Your task to perform on an android device: Search for "alienware area 51" on target.com, select the first entry, and add it to the cart. Image 0: 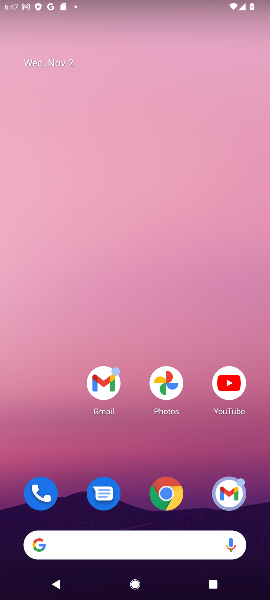
Step 0: drag from (128, 500) to (127, 216)
Your task to perform on an android device: Search for "alienware area 51" on target.com, select the first entry, and add it to the cart. Image 1: 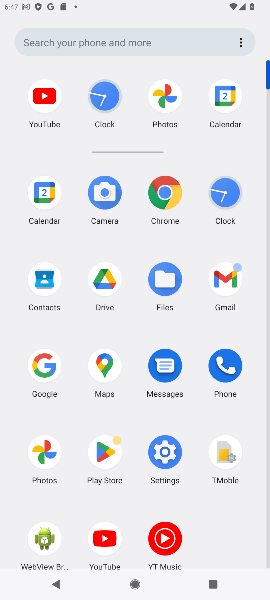
Step 1: click (40, 358)
Your task to perform on an android device: Search for "alienware area 51" on target.com, select the first entry, and add it to the cart. Image 2: 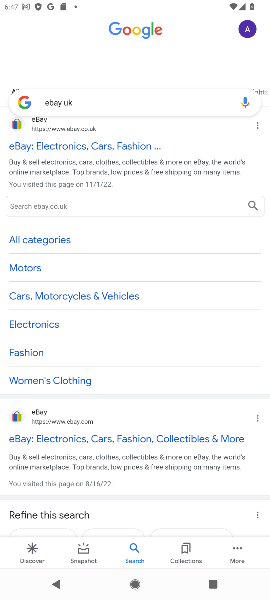
Step 2: click (111, 102)
Your task to perform on an android device: Search for "alienware area 51" on target.com, select the first entry, and add it to the cart. Image 3: 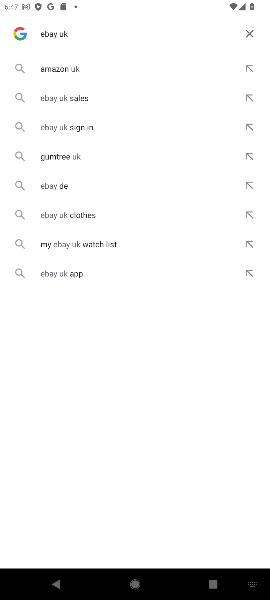
Step 3: click (244, 28)
Your task to perform on an android device: Search for "alienware area 51" on target.com, select the first entry, and add it to the cart. Image 4: 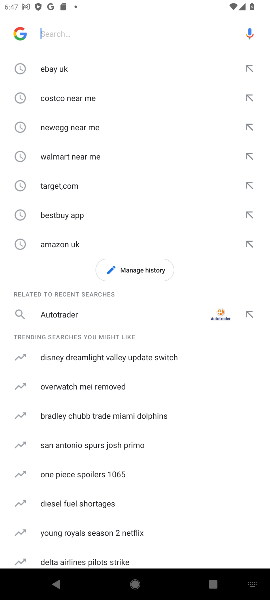
Step 4: click (35, 24)
Your task to perform on an android device: Search for "alienware area 51" on target.com, select the first entry, and add it to the cart. Image 5: 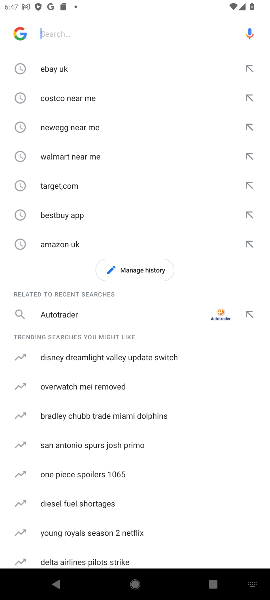
Step 5: click (41, 24)
Your task to perform on an android device: Search for "alienware area 51" on target.com, select the first entry, and add it to the cart. Image 6: 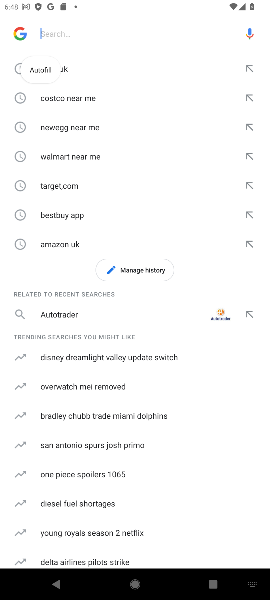
Step 6: type "target "
Your task to perform on an android device: Search for "alienware area 51" on target.com, select the first entry, and add it to the cart. Image 7: 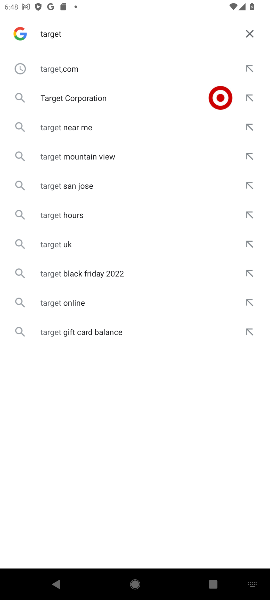
Step 7: click (59, 67)
Your task to perform on an android device: Search for "alienware area 51" on target.com, select the first entry, and add it to the cart. Image 8: 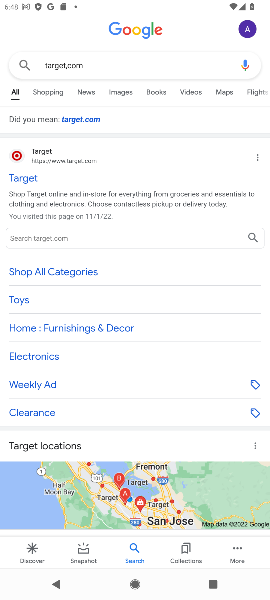
Step 8: click (12, 156)
Your task to perform on an android device: Search for "alienware area 51" on target.com, select the first entry, and add it to the cart. Image 9: 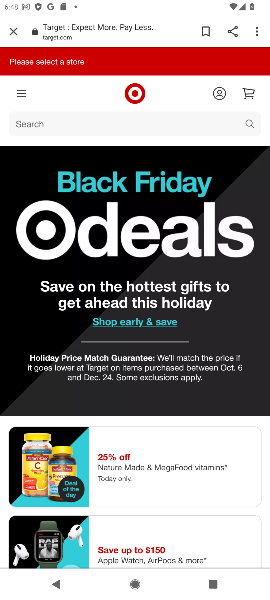
Step 9: click (112, 116)
Your task to perform on an android device: Search for "alienware area 51" on target.com, select the first entry, and add it to the cart. Image 10: 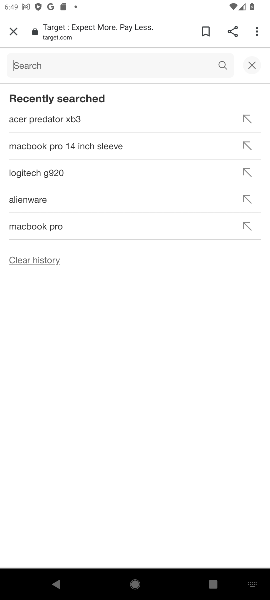
Step 10: click (65, 55)
Your task to perform on an android device: Search for "alienware area 51" on target.com, select the first entry, and add it to the cart. Image 11: 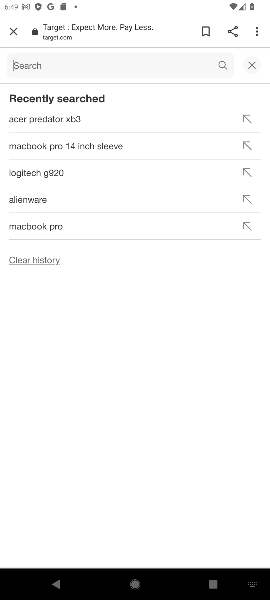
Step 11: click (109, 62)
Your task to perform on an android device: Search for "alienware area 51" on target.com, select the first entry, and add it to the cart. Image 12: 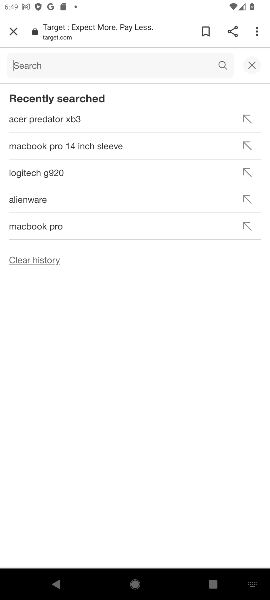
Step 12: type "alienware area 51 "
Your task to perform on an android device: Search for "alienware area 51" on target.com, select the first entry, and add it to the cart. Image 13: 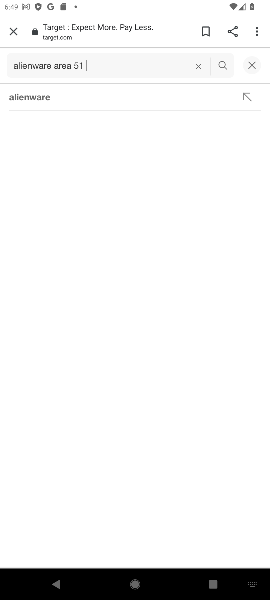
Step 13: click (21, 100)
Your task to perform on an android device: Search for "alienware area 51" on target.com, select the first entry, and add it to the cart. Image 14: 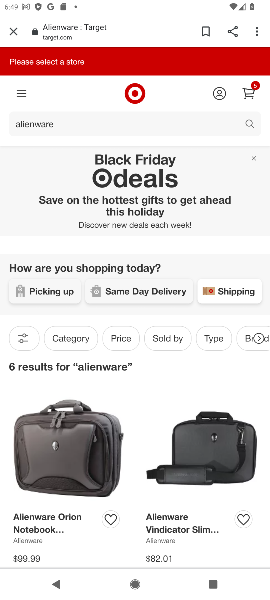
Step 14: drag from (97, 449) to (95, 278)
Your task to perform on an android device: Search for "alienware area 51" on target.com, select the first entry, and add it to the cart. Image 15: 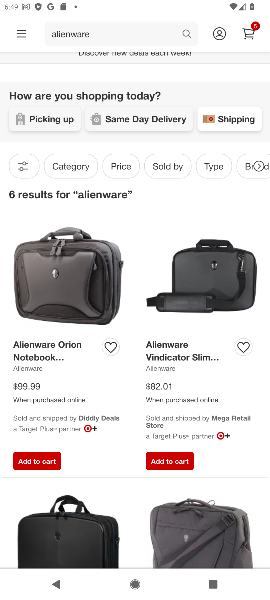
Step 15: click (39, 455)
Your task to perform on an android device: Search for "alienware area 51" on target.com, select the first entry, and add it to the cart. Image 16: 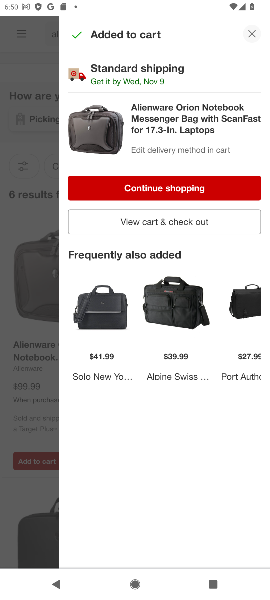
Step 16: task complete